Your task to perform on an android device: Open CNN.com Image 0: 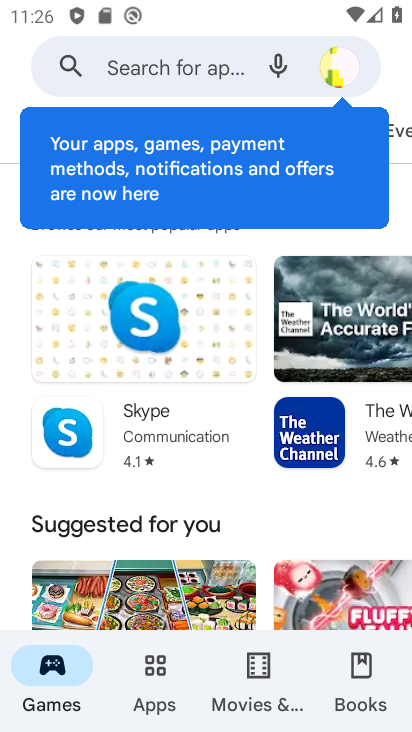
Step 0: press home button
Your task to perform on an android device: Open CNN.com Image 1: 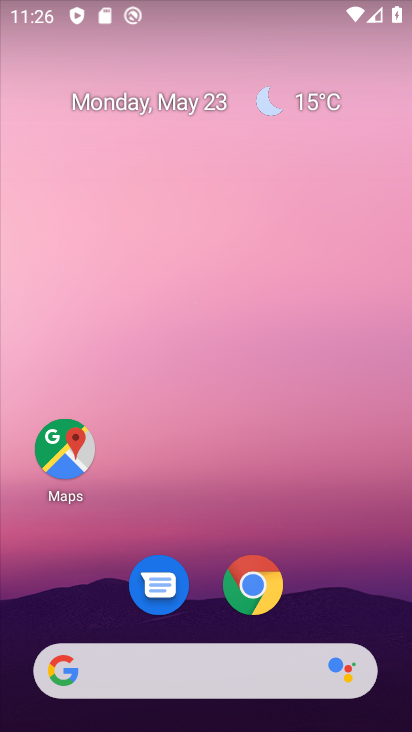
Step 1: click (238, 683)
Your task to perform on an android device: Open CNN.com Image 2: 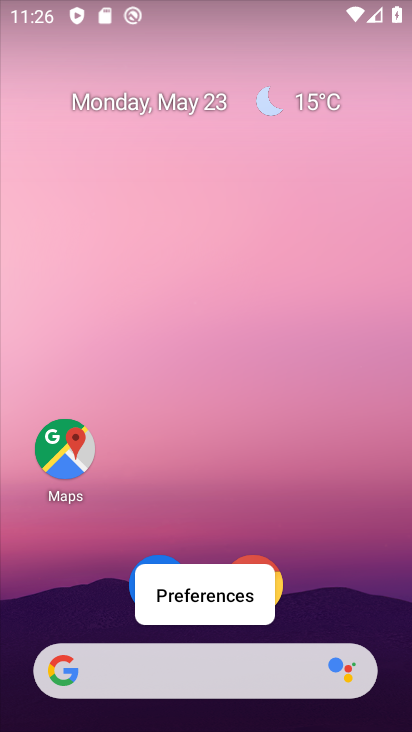
Step 2: click (238, 681)
Your task to perform on an android device: Open CNN.com Image 3: 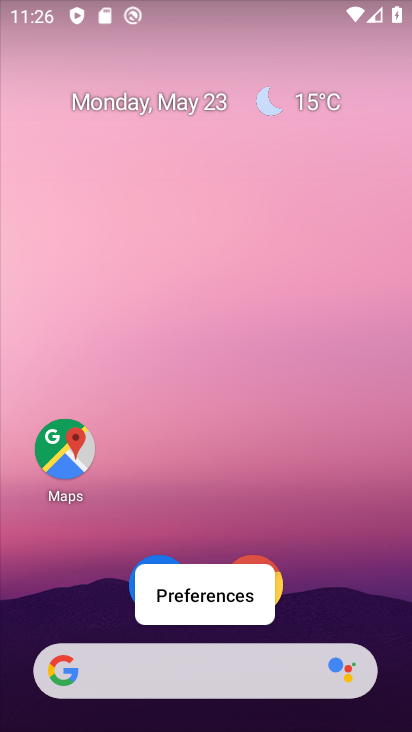
Step 3: click (197, 678)
Your task to perform on an android device: Open CNN.com Image 4: 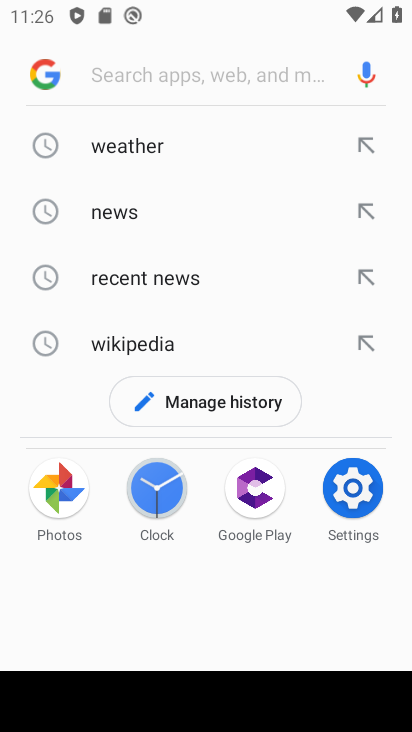
Step 4: type "cnn.com"
Your task to perform on an android device: Open CNN.com Image 5: 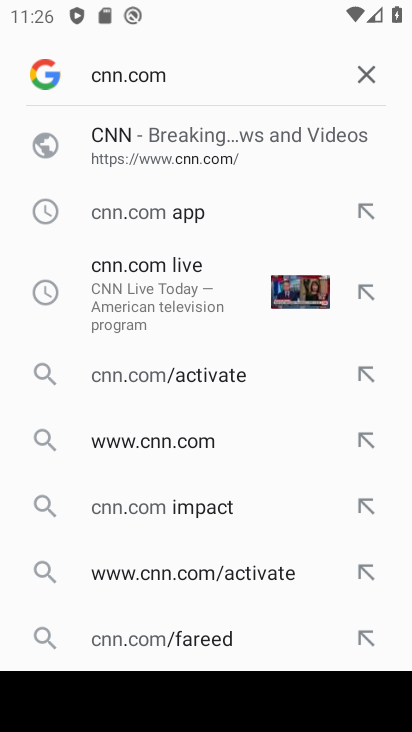
Step 5: click (112, 140)
Your task to perform on an android device: Open CNN.com Image 6: 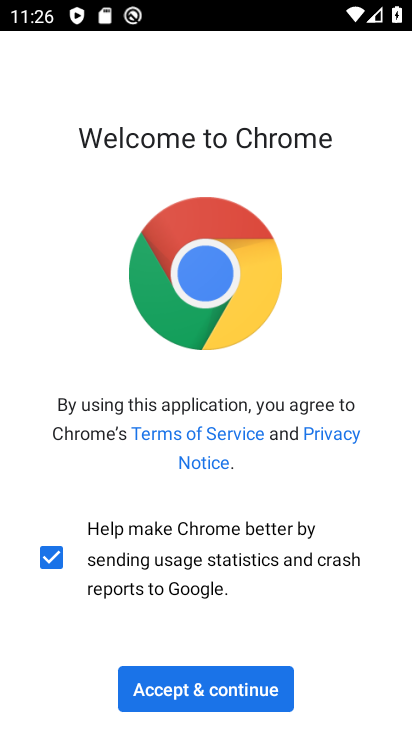
Step 6: click (217, 675)
Your task to perform on an android device: Open CNN.com Image 7: 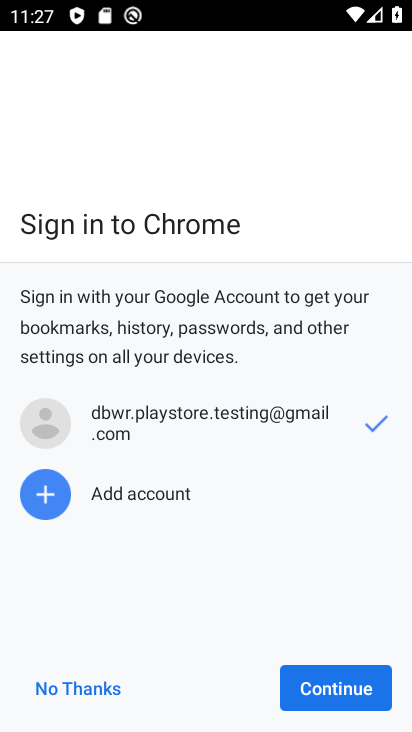
Step 7: click (314, 681)
Your task to perform on an android device: Open CNN.com Image 8: 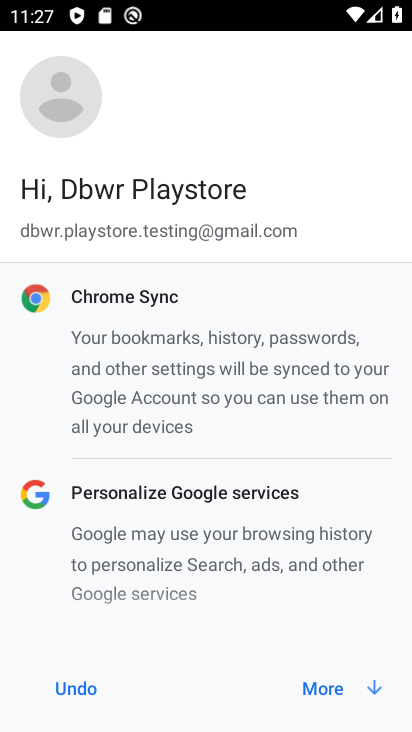
Step 8: click (314, 681)
Your task to perform on an android device: Open CNN.com Image 9: 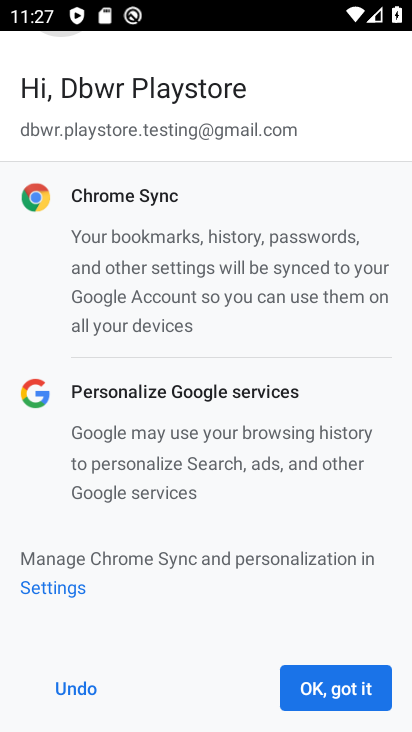
Step 9: click (314, 681)
Your task to perform on an android device: Open CNN.com Image 10: 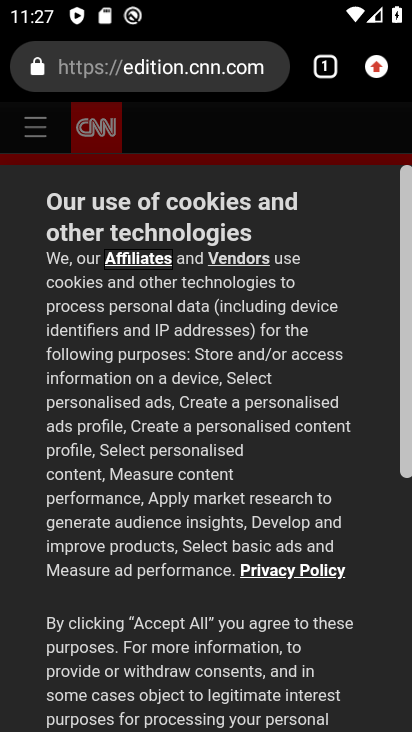
Step 10: task complete